Your task to perform on an android device: open app "Viber Messenger" (install if not already installed) Image 0: 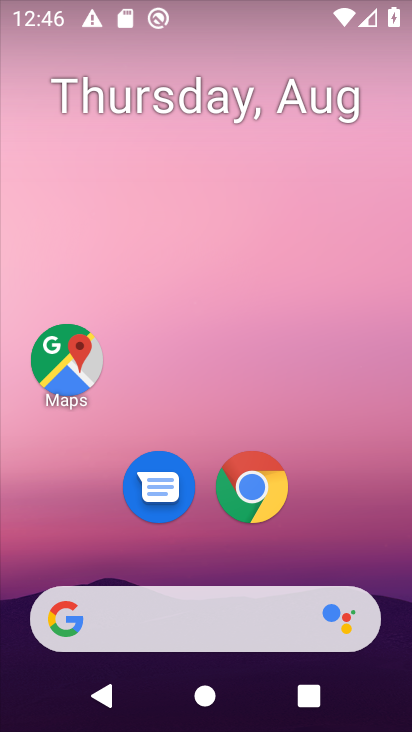
Step 0: press home button
Your task to perform on an android device: open app "Viber Messenger" (install if not already installed) Image 1: 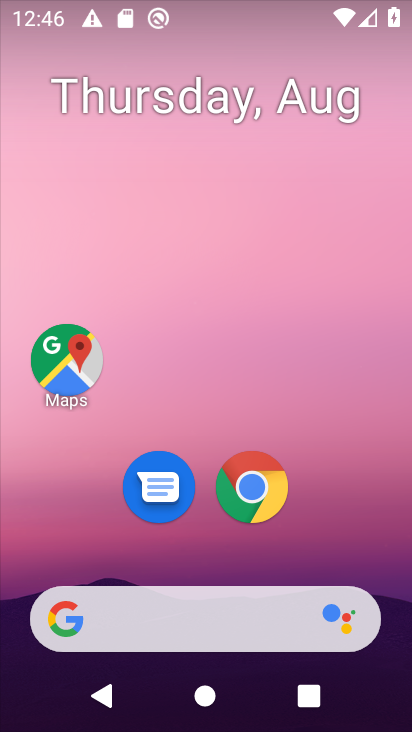
Step 1: click (247, 50)
Your task to perform on an android device: open app "Viber Messenger" (install if not already installed) Image 2: 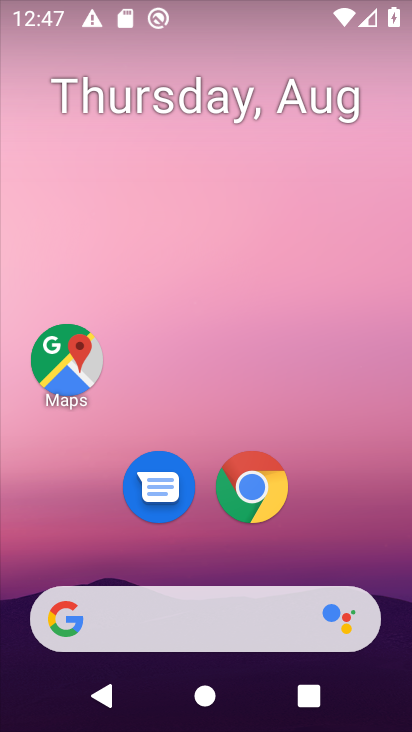
Step 2: drag from (211, 560) to (201, 31)
Your task to perform on an android device: open app "Viber Messenger" (install if not already installed) Image 3: 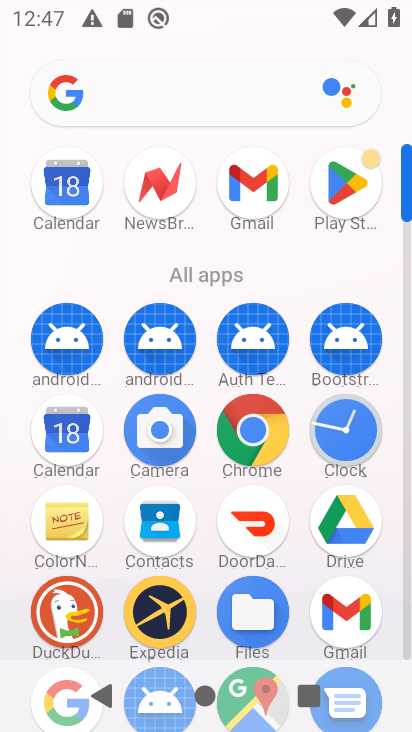
Step 3: click (330, 180)
Your task to perform on an android device: open app "Viber Messenger" (install if not already installed) Image 4: 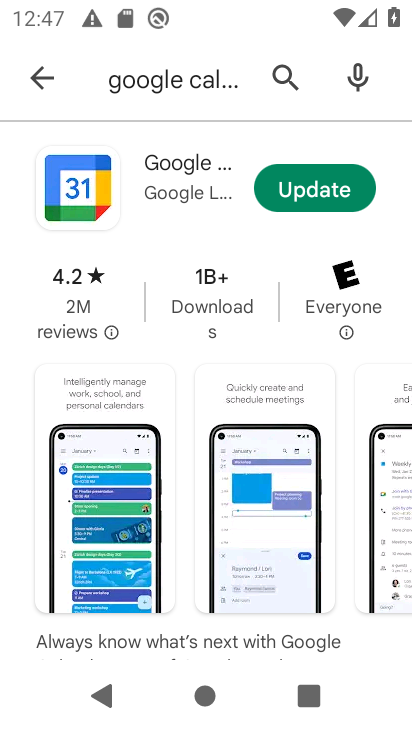
Step 4: click (281, 72)
Your task to perform on an android device: open app "Viber Messenger" (install if not already installed) Image 5: 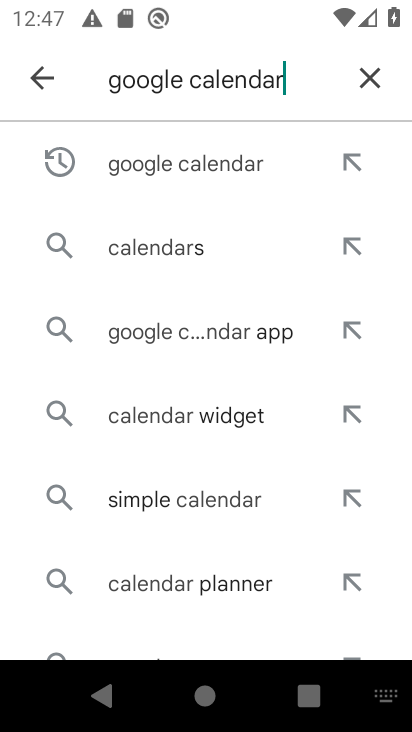
Step 5: click (375, 76)
Your task to perform on an android device: open app "Viber Messenger" (install if not already installed) Image 6: 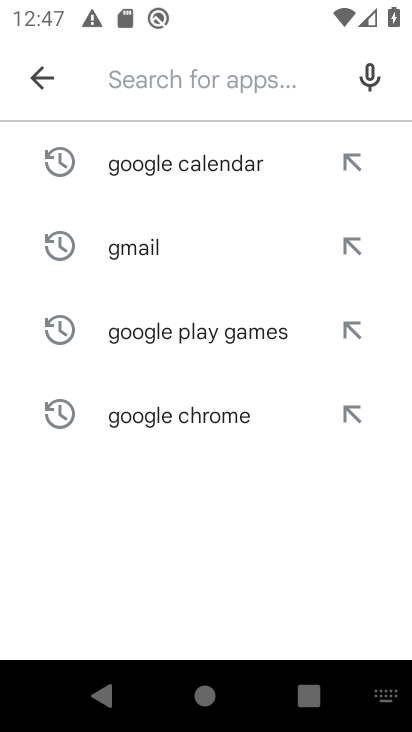
Step 6: type "Viber Messenger"
Your task to perform on an android device: open app "Viber Messenger" (install if not already installed) Image 7: 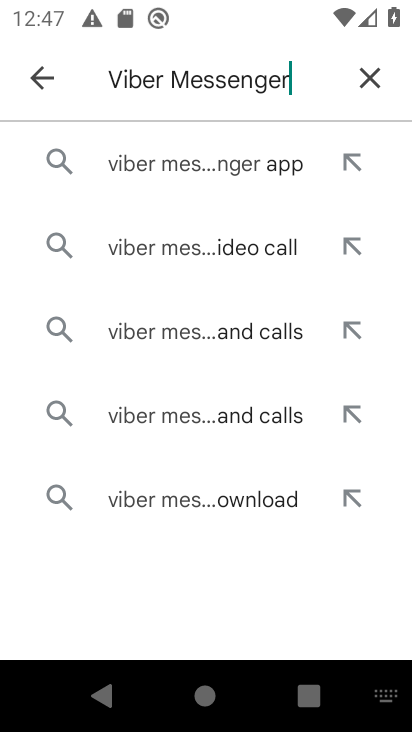
Step 7: click (180, 163)
Your task to perform on an android device: open app "Viber Messenger" (install if not already installed) Image 8: 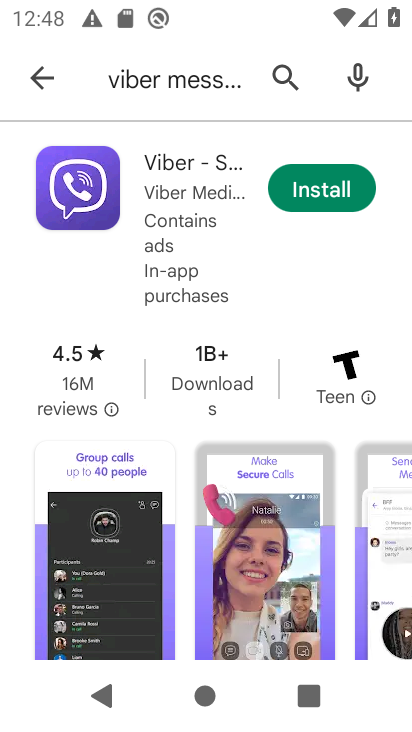
Step 8: click (327, 197)
Your task to perform on an android device: open app "Viber Messenger" (install if not already installed) Image 9: 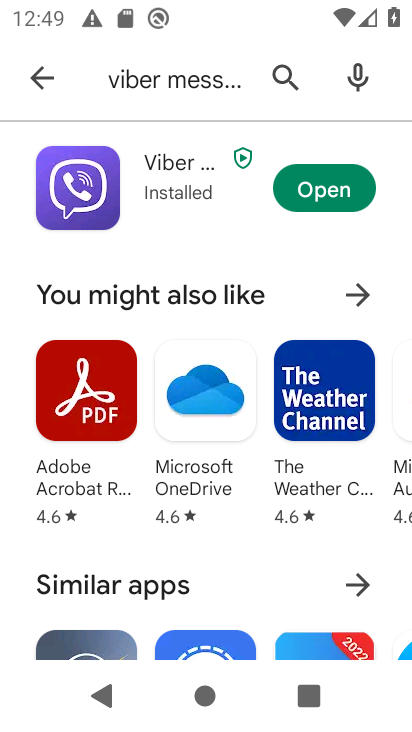
Step 9: click (335, 186)
Your task to perform on an android device: open app "Viber Messenger" (install if not already installed) Image 10: 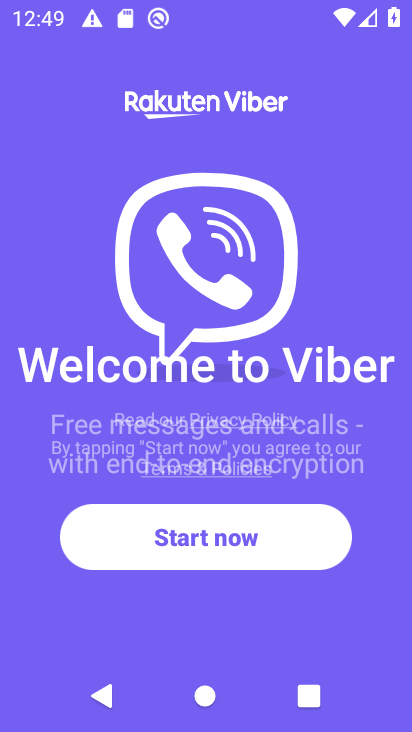
Step 10: click (210, 545)
Your task to perform on an android device: open app "Viber Messenger" (install if not already installed) Image 11: 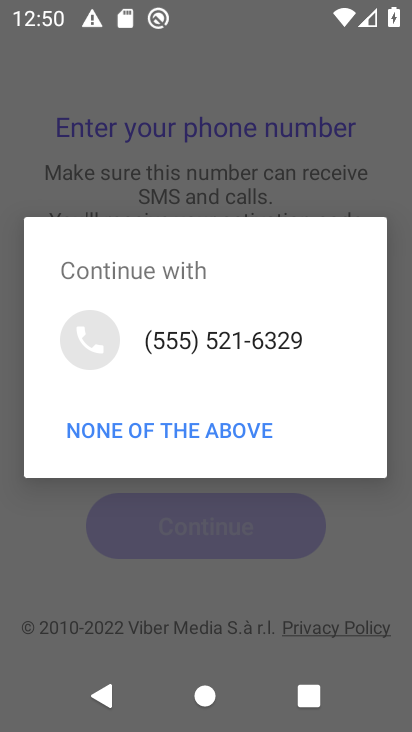
Step 11: click (202, 351)
Your task to perform on an android device: open app "Viber Messenger" (install if not already installed) Image 12: 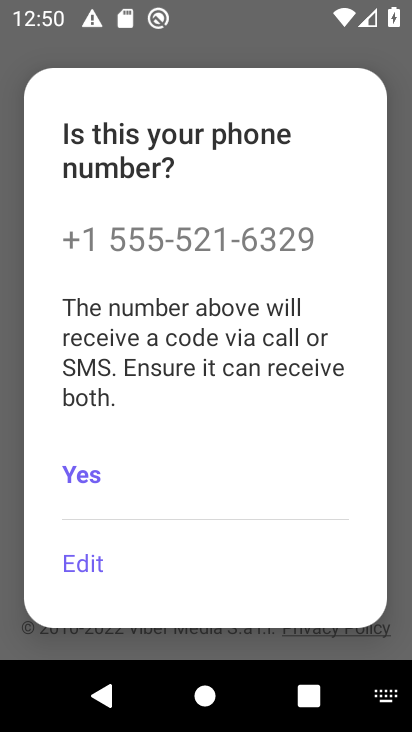
Step 12: click (99, 475)
Your task to perform on an android device: open app "Viber Messenger" (install if not already installed) Image 13: 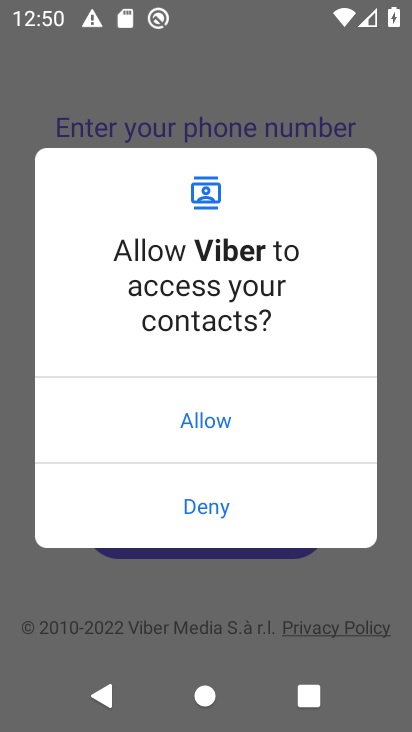
Step 13: click (207, 424)
Your task to perform on an android device: open app "Viber Messenger" (install if not already installed) Image 14: 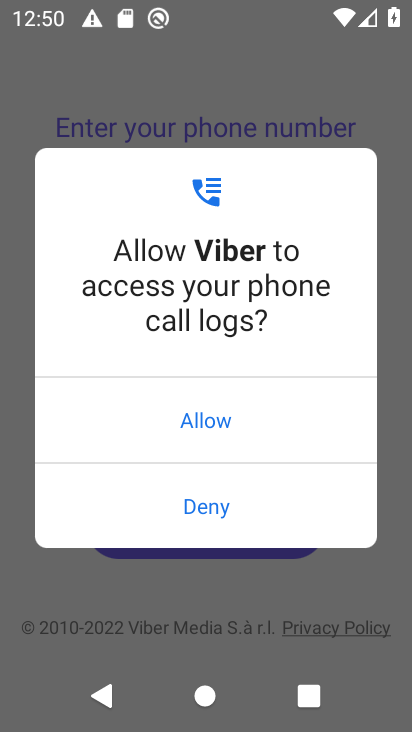
Step 14: click (213, 420)
Your task to perform on an android device: open app "Viber Messenger" (install if not already installed) Image 15: 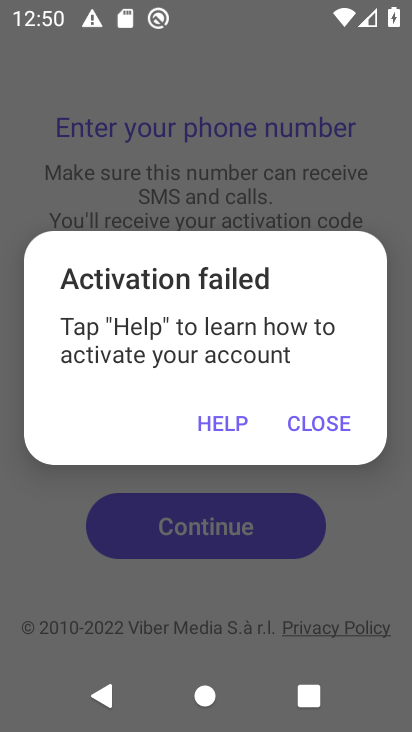
Step 15: click (314, 423)
Your task to perform on an android device: open app "Viber Messenger" (install if not already installed) Image 16: 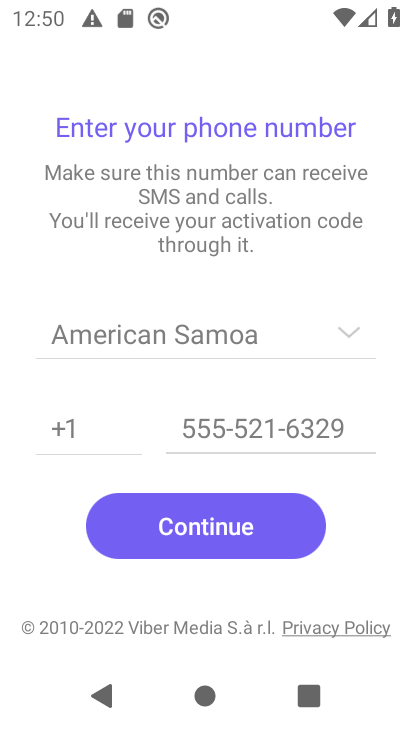
Step 16: click (202, 532)
Your task to perform on an android device: open app "Viber Messenger" (install if not already installed) Image 17: 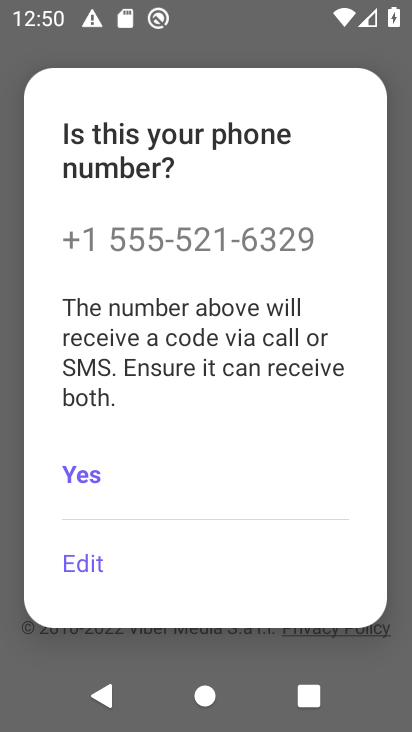
Step 17: click (124, 477)
Your task to perform on an android device: open app "Viber Messenger" (install if not already installed) Image 18: 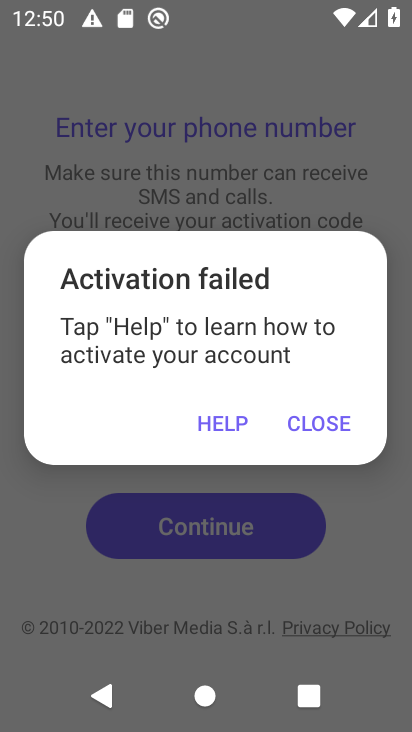
Step 18: click (314, 426)
Your task to perform on an android device: open app "Viber Messenger" (install if not already installed) Image 19: 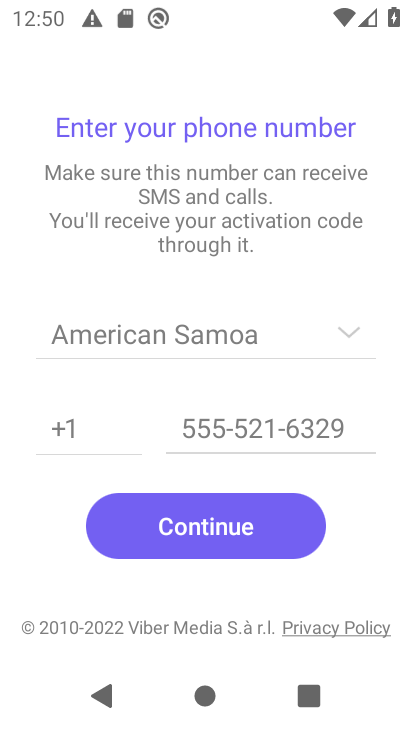
Step 19: task complete